Your task to perform on an android device: turn off notifications in google photos Image 0: 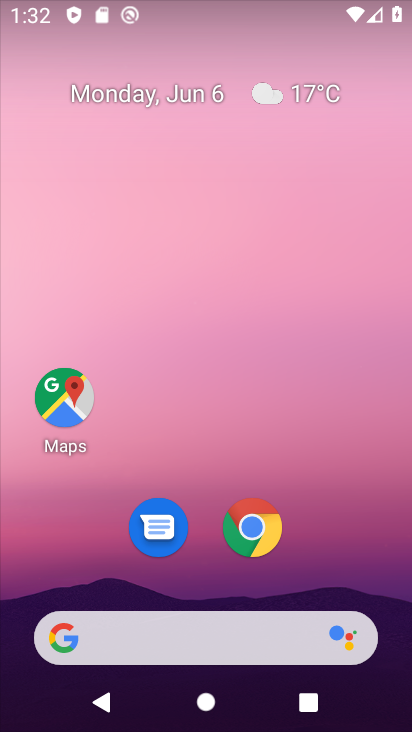
Step 0: drag from (229, 727) to (212, 52)
Your task to perform on an android device: turn off notifications in google photos Image 1: 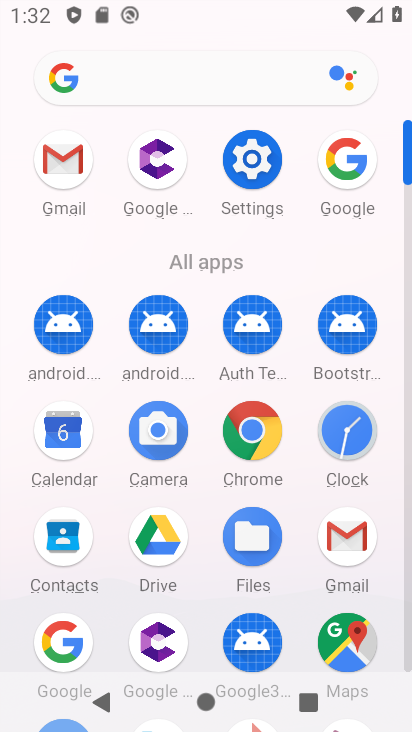
Step 1: drag from (281, 651) to (284, 371)
Your task to perform on an android device: turn off notifications in google photos Image 2: 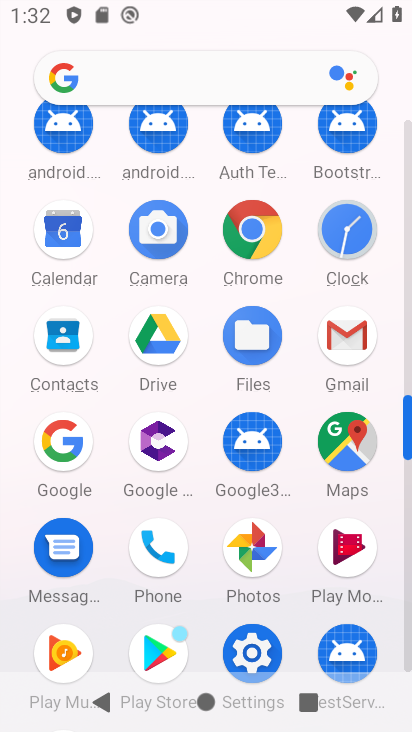
Step 2: click (257, 545)
Your task to perform on an android device: turn off notifications in google photos Image 3: 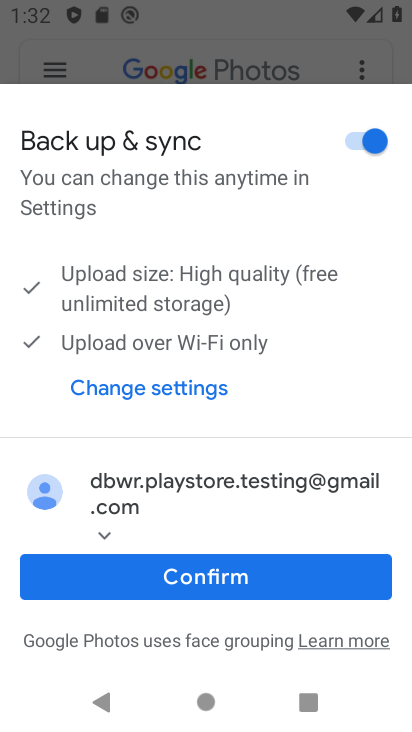
Step 3: click (221, 576)
Your task to perform on an android device: turn off notifications in google photos Image 4: 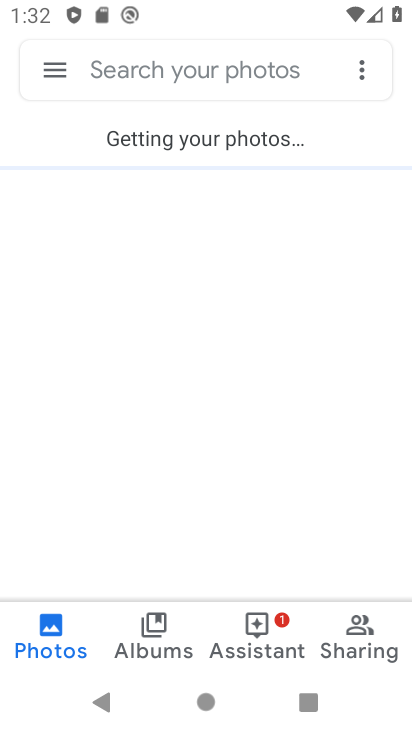
Step 4: click (53, 70)
Your task to perform on an android device: turn off notifications in google photos Image 5: 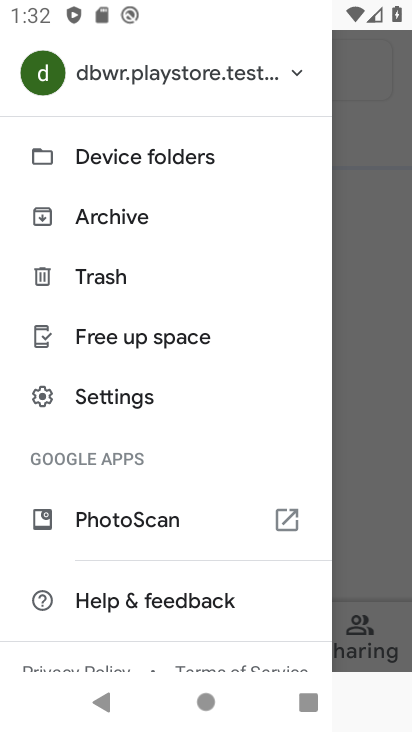
Step 5: drag from (121, 400) to (9, 387)
Your task to perform on an android device: turn off notifications in google photos Image 6: 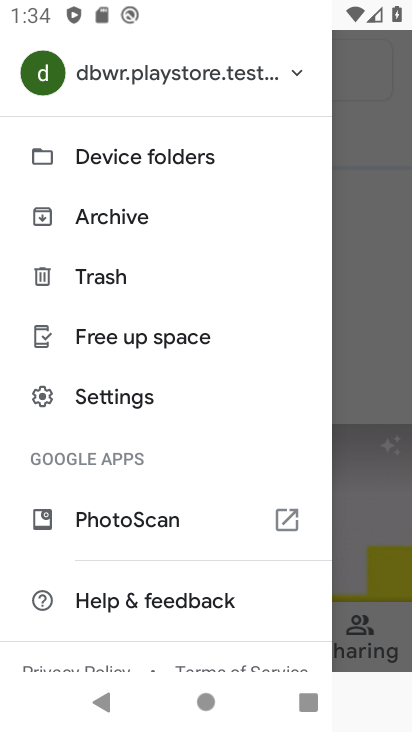
Step 6: click (129, 395)
Your task to perform on an android device: turn off notifications in google photos Image 7: 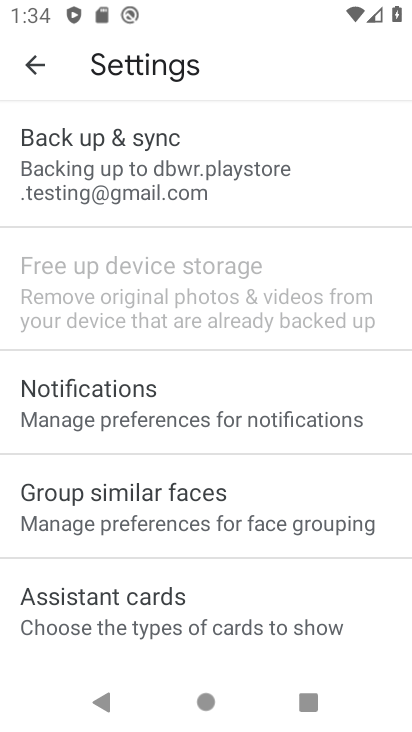
Step 7: click (112, 417)
Your task to perform on an android device: turn off notifications in google photos Image 8: 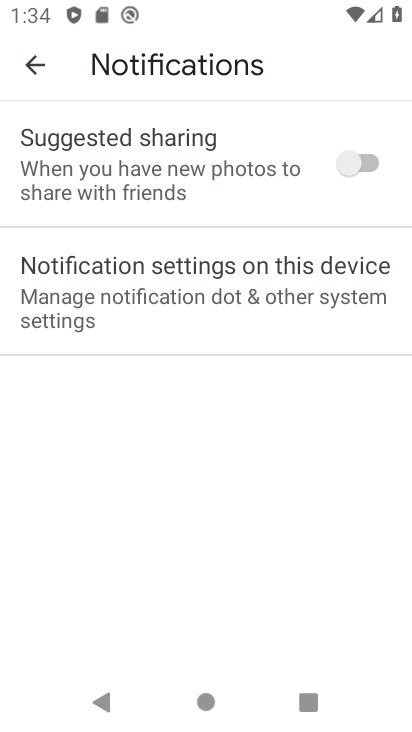
Step 8: click (162, 295)
Your task to perform on an android device: turn off notifications in google photos Image 9: 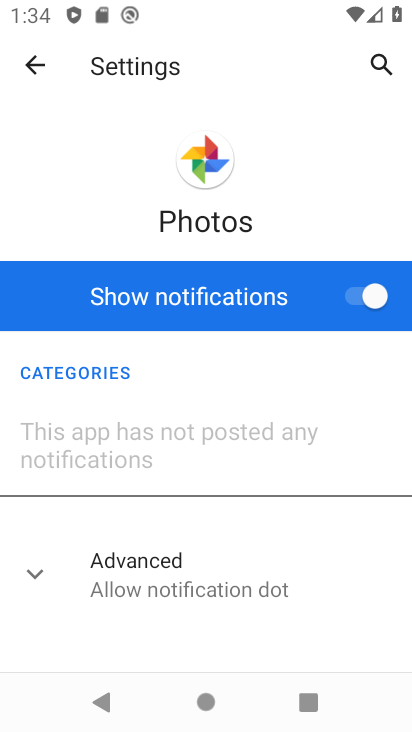
Step 9: click (355, 294)
Your task to perform on an android device: turn off notifications in google photos Image 10: 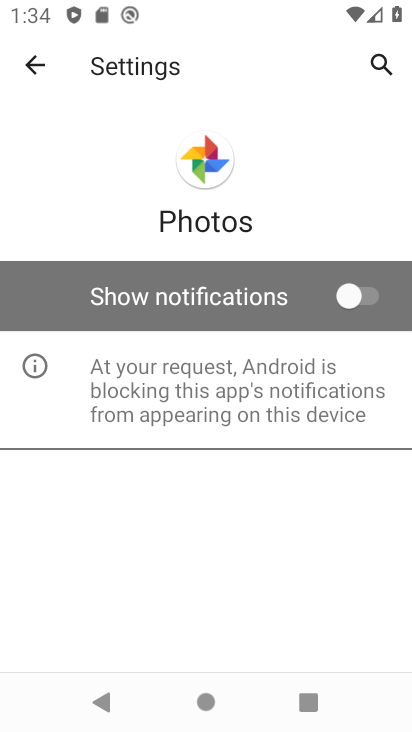
Step 10: task complete